Your task to perform on an android device: turn pop-ups on in chrome Image 0: 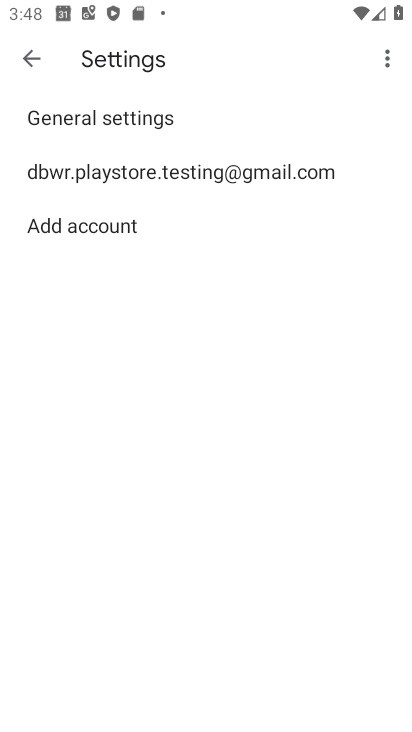
Step 0: press home button
Your task to perform on an android device: turn pop-ups on in chrome Image 1: 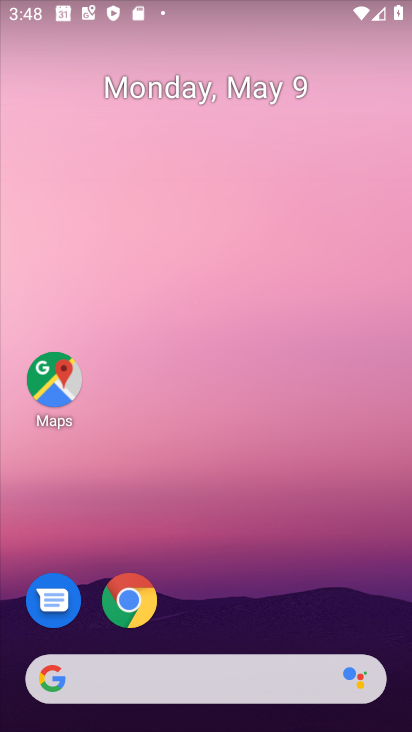
Step 1: drag from (292, 658) to (284, 8)
Your task to perform on an android device: turn pop-ups on in chrome Image 2: 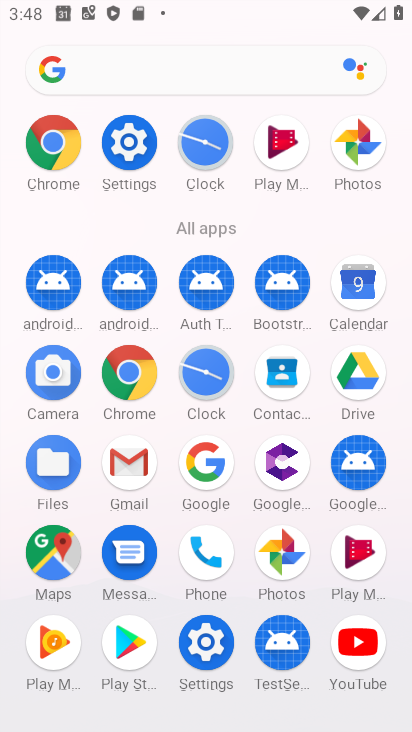
Step 2: click (111, 139)
Your task to perform on an android device: turn pop-ups on in chrome Image 3: 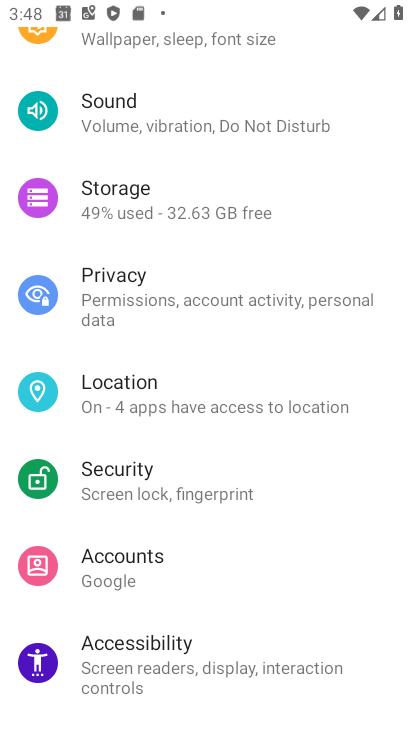
Step 3: press home button
Your task to perform on an android device: turn pop-ups on in chrome Image 4: 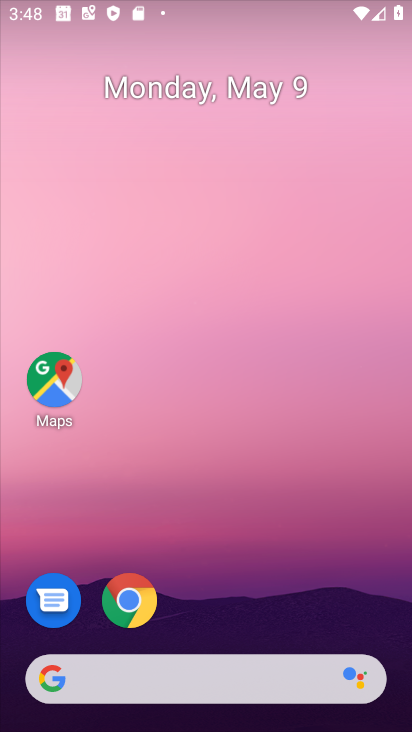
Step 4: drag from (268, 667) to (254, 97)
Your task to perform on an android device: turn pop-ups on in chrome Image 5: 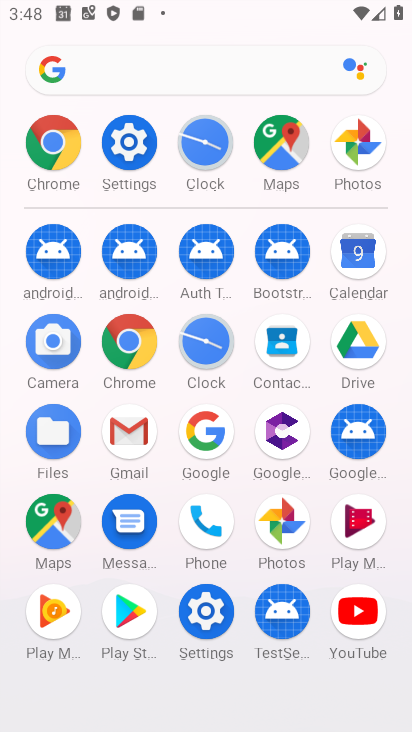
Step 5: click (107, 351)
Your task to perform on an android device: turn pop-ups on in chrome Image 6: 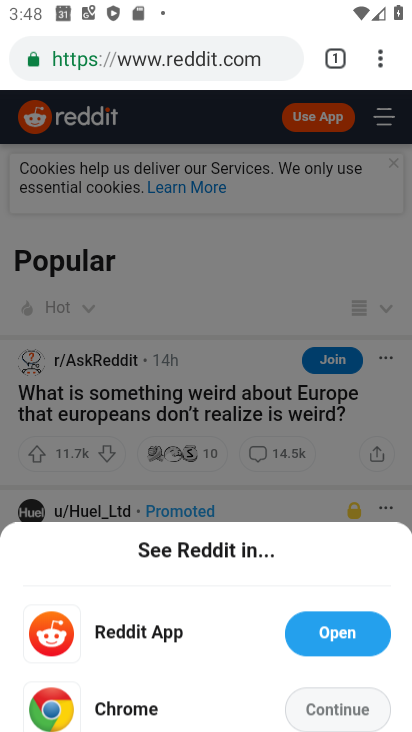
Step 6: click (375, 51)
Your task to perform on an android device: turn pop-ups on in chrome Image 7: 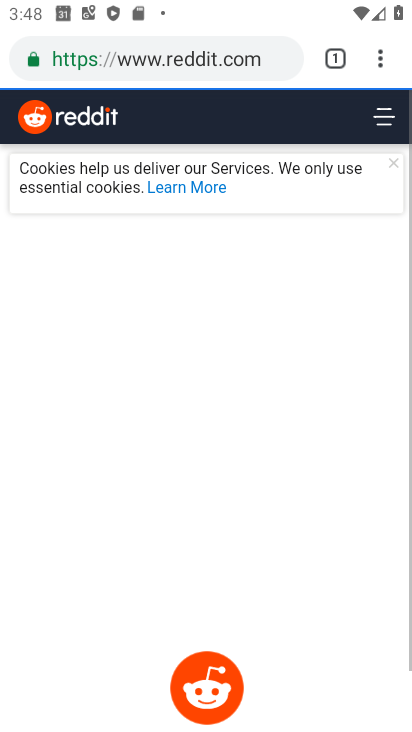
Step 7: drag from (369, 76) to (209, 623)
Your task to perform on an android device: turn pop-ups on in chrome Image 8: 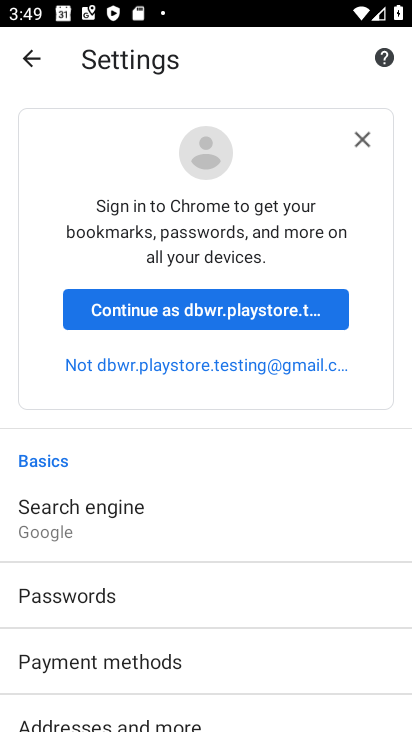
Step 8: drag from (178, 688) to (280, 151)
Your task to perform on an android device: turn pop-ups on in chrome Image 9: 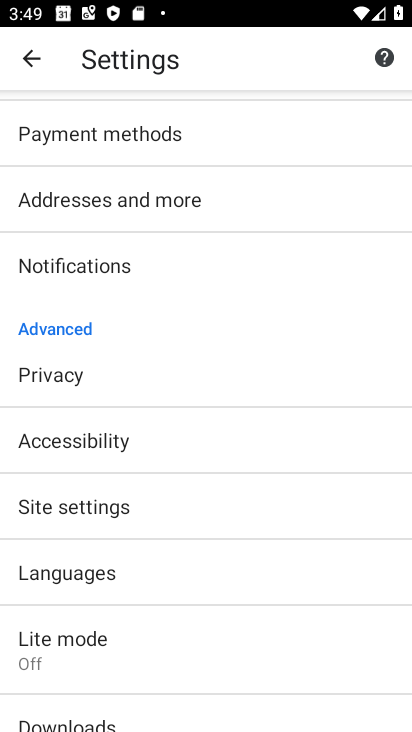
Step 9: click (330, 518)
Your task to perform on an android device: turn pop-ups on in chrome Image 10: 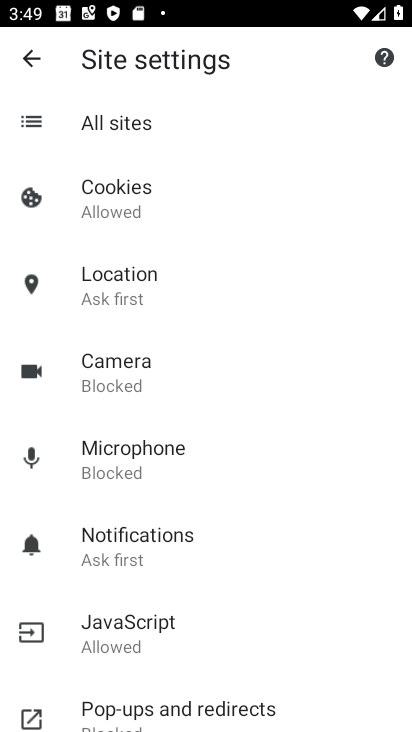
Step 10: click (161, 720)
Your task to perform on an android device: turn pop-ups on in chrome Image 11: 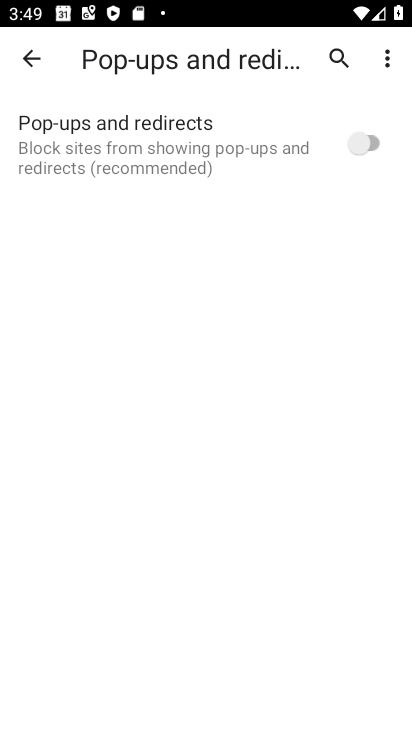
Step 11: click (374, 139)
Your task to perform on an android device: turn pop-ups on in chrome Image 12: 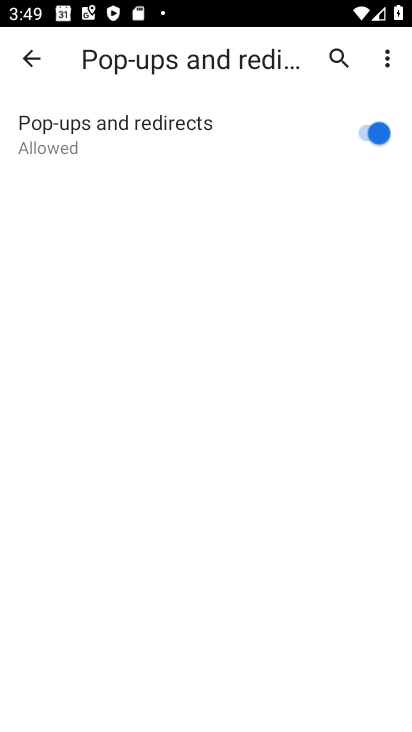
Step 12: task complete